Your task to perform on an android device: stop showing notifications on the lock screen Image 0: 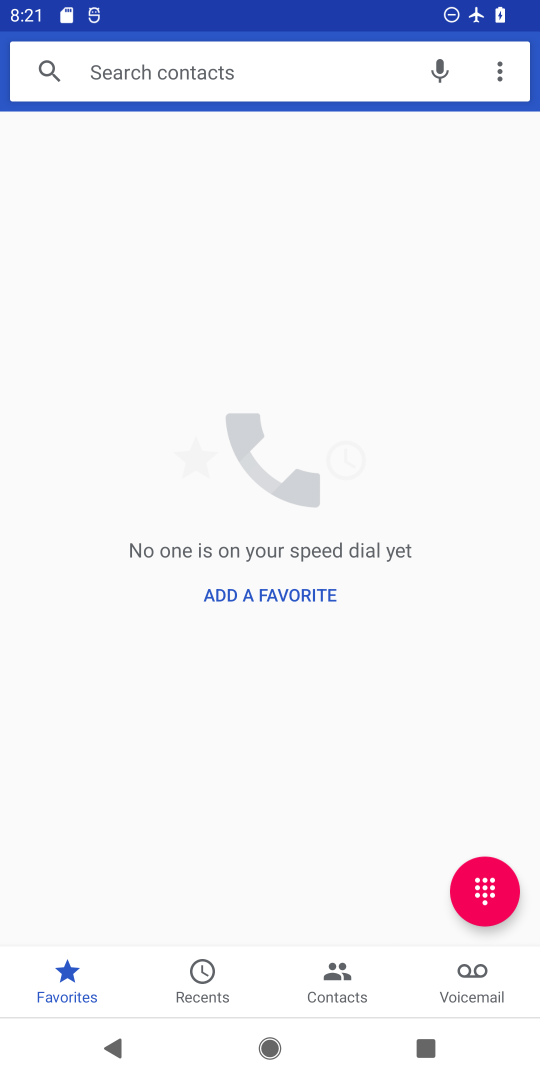
Step 0: press home button
Your task to perform on an android device: stop showing notifications on the lock screen Image 1: 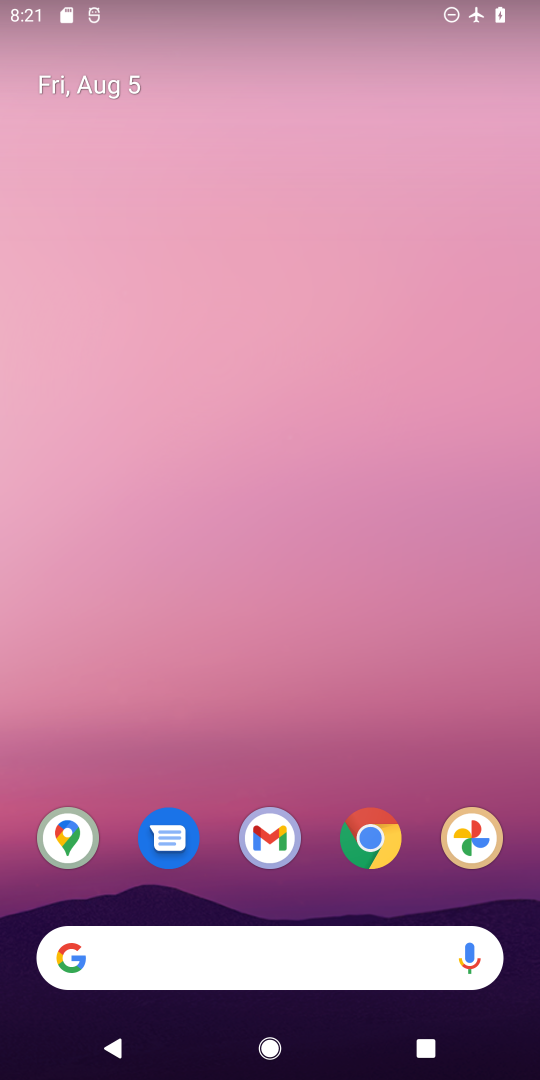
Step 1: drag from (212, 869) to (209, 190)
Your task to perform on an android device: stop showing notifications on the lock screen Image 2: 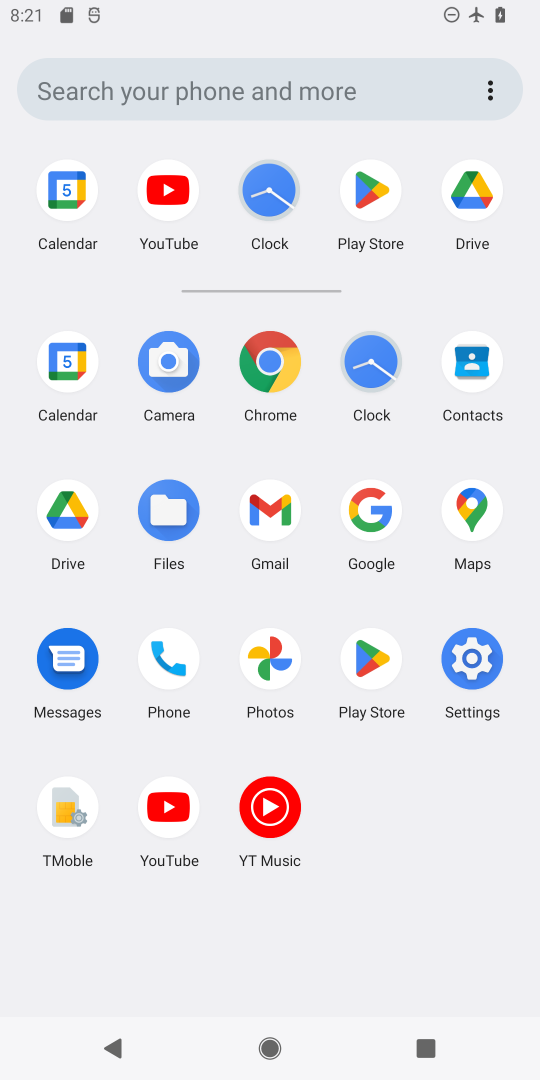
Step 2: click (470, 663)
Your task to perform on an android device: stop showing notifications on the lock screen Image 3: 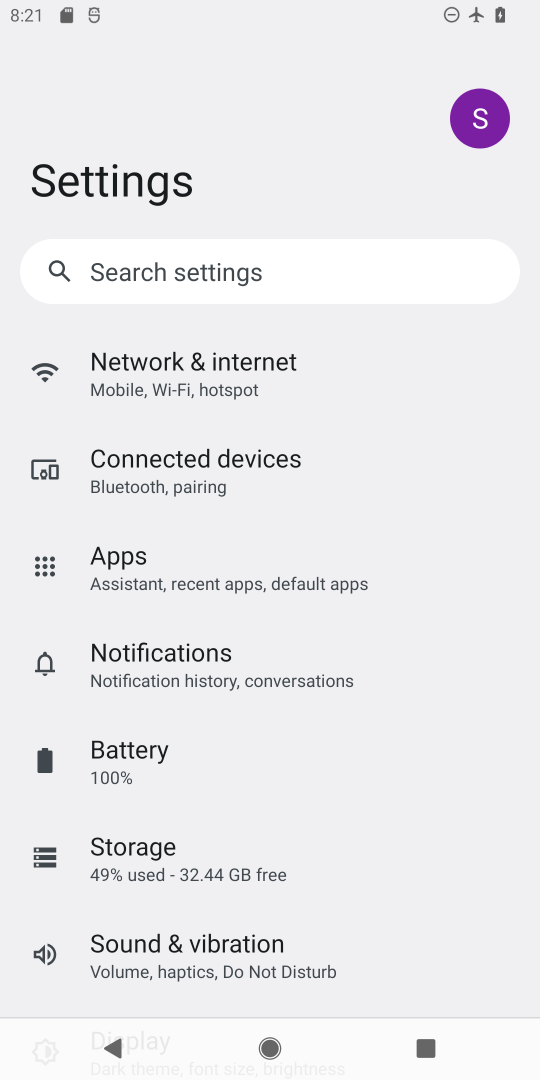
Step 3: click (156, 668)
Your task to perform on an android device: stop showing notifications on the lock screen Image 4: 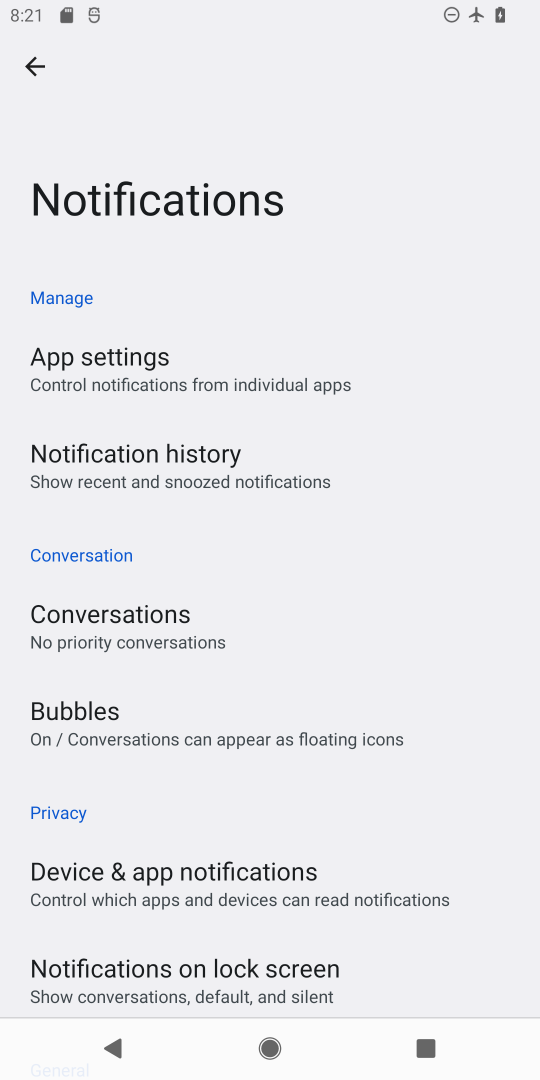
Step 4: drag from (113, 975) to (90, 564)
Your task to perform on an android device: stop showing notifications on the lock screen Image 5: 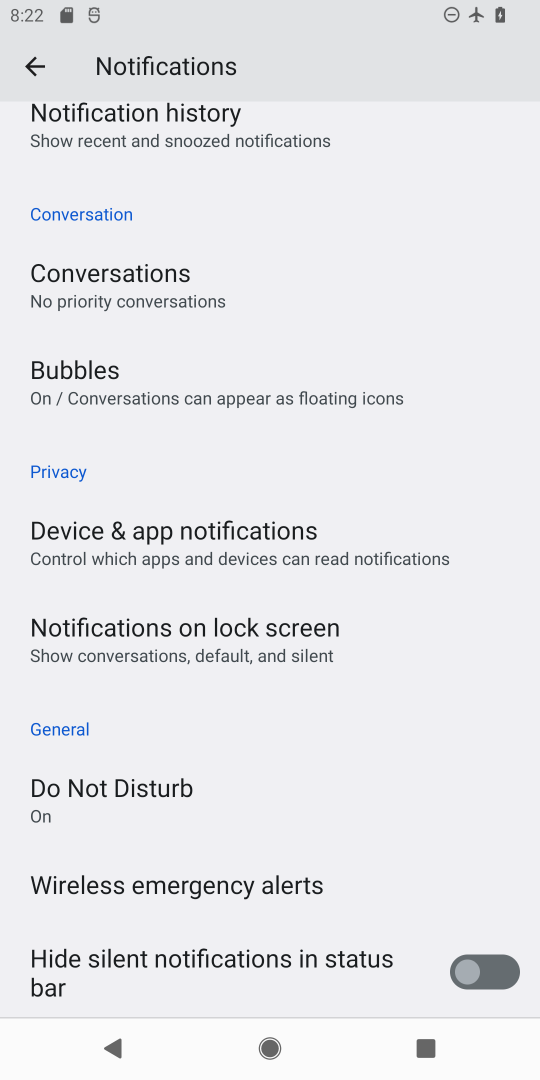
Step 5: click (142, 638)
Your task to perform on an android device: stop showing notifications on the lock screen Image 6: 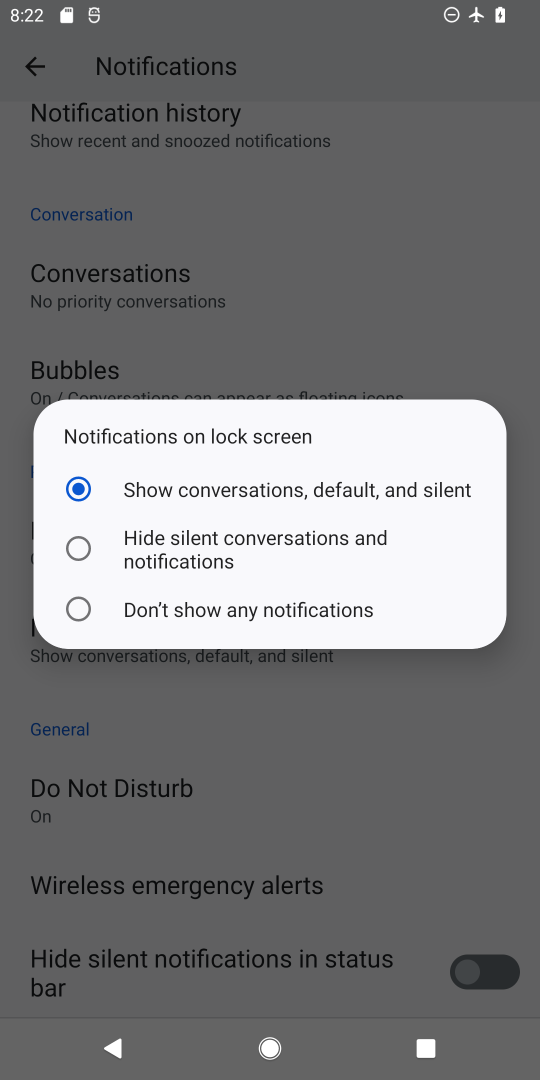
Step 6: click (176, 615)
Your task to perform on an android device: stop showing notifications on the lock screen Image 7: 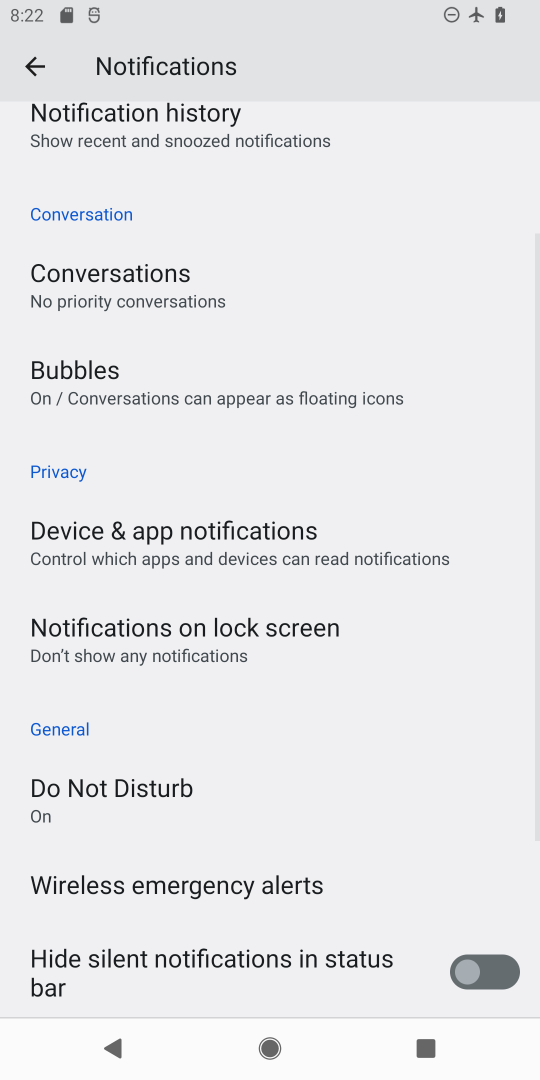
Step 7: task complete